Your task to perform on an android device: Open my contact list Image 0: 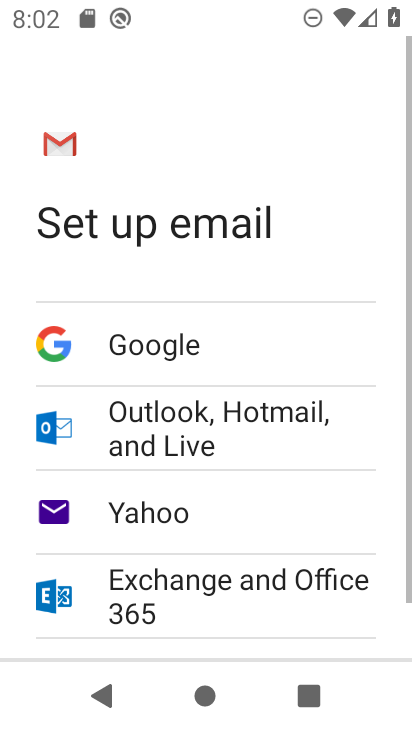
Step 0: press home button
Your task to perform on an android device: Open my contact list Image 1: 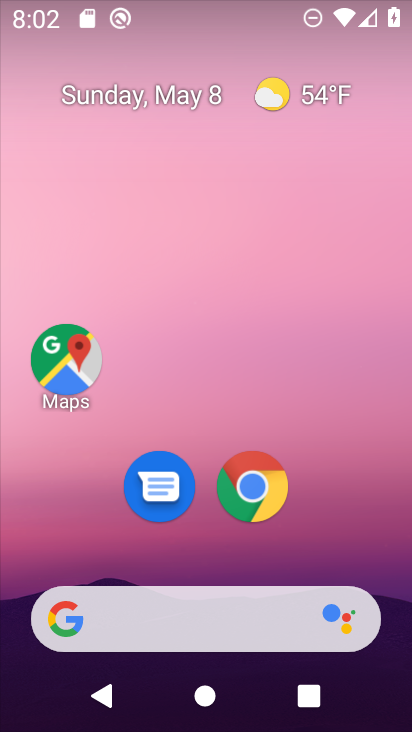
Step 1: drag from (190, 580) to (246, 177)
Your task to perform on an android device: Open my contact list Image 2: 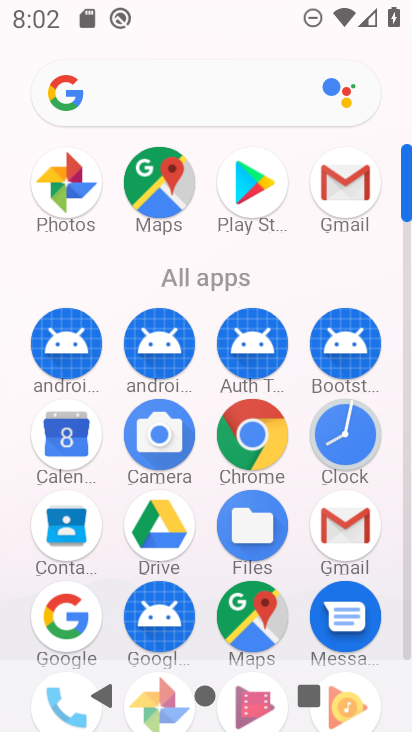
Step 2: click (58, 536)
Your task to perform on an android device: Open my contact list Image 3: 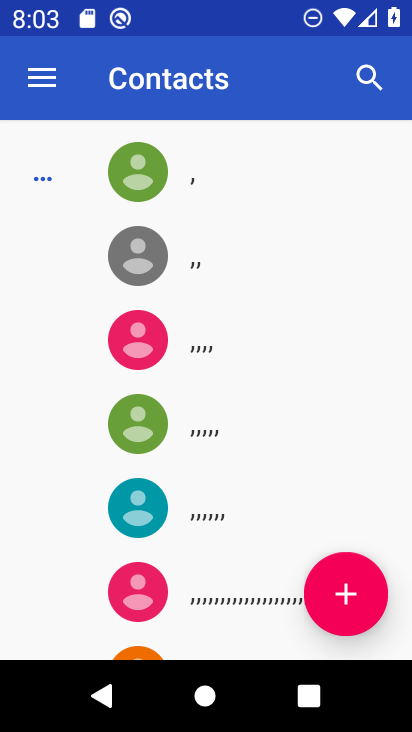
Step 3: task complete